Your task to perform on an android device: Search for vegetarian restaurants on Maps Image 0: 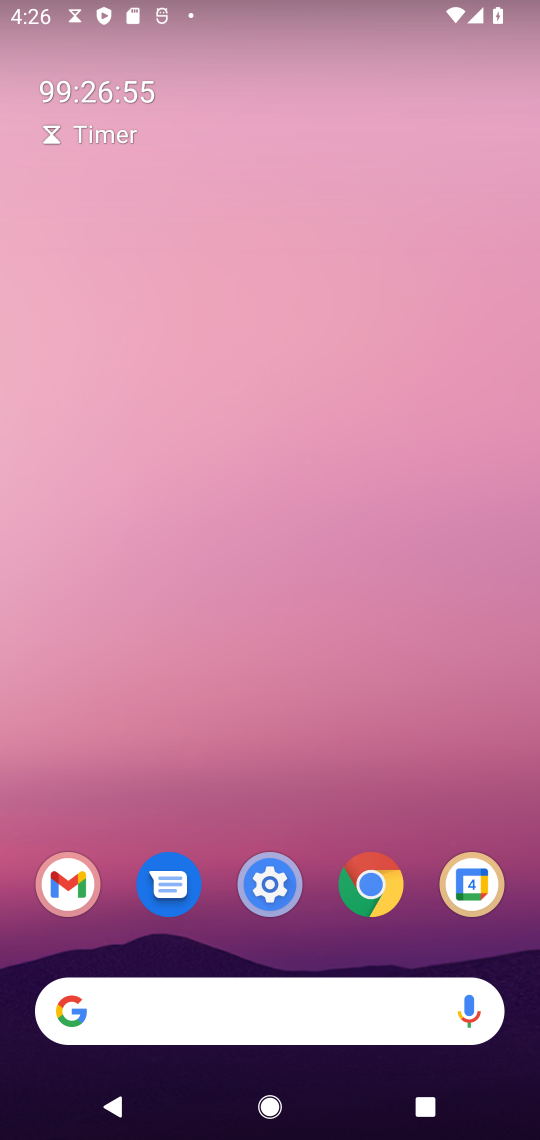
Step 0: drag from (258, 971) to (270, 414)
Your task to perform on an android device: Search for vegetarian restaurants on Maps Image 1: 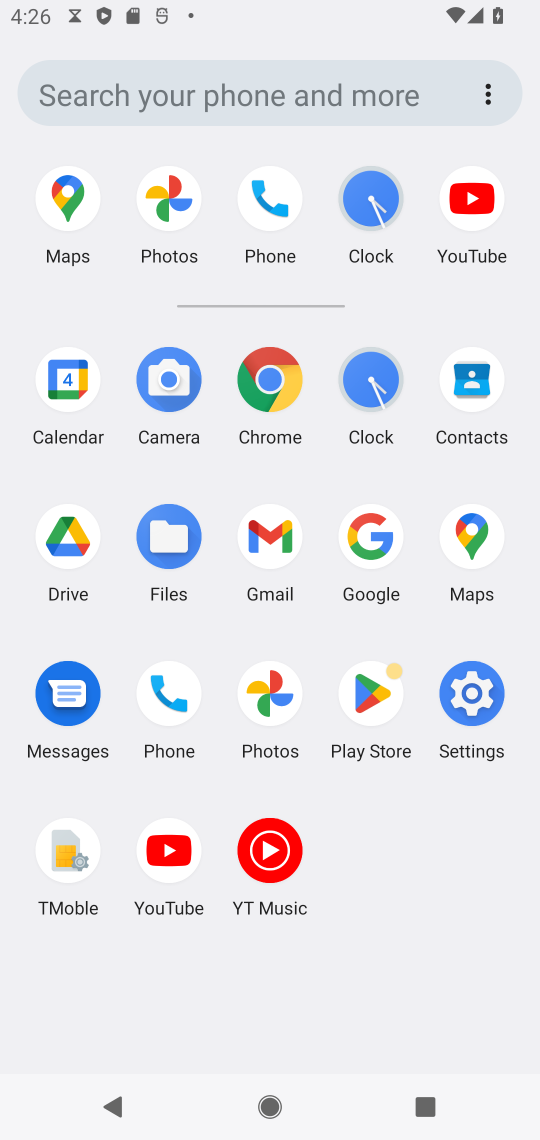
Step 1: click (470, 557)
Your task to perform on an android device: Search for vegetarian restaurants on Maps Image 2: 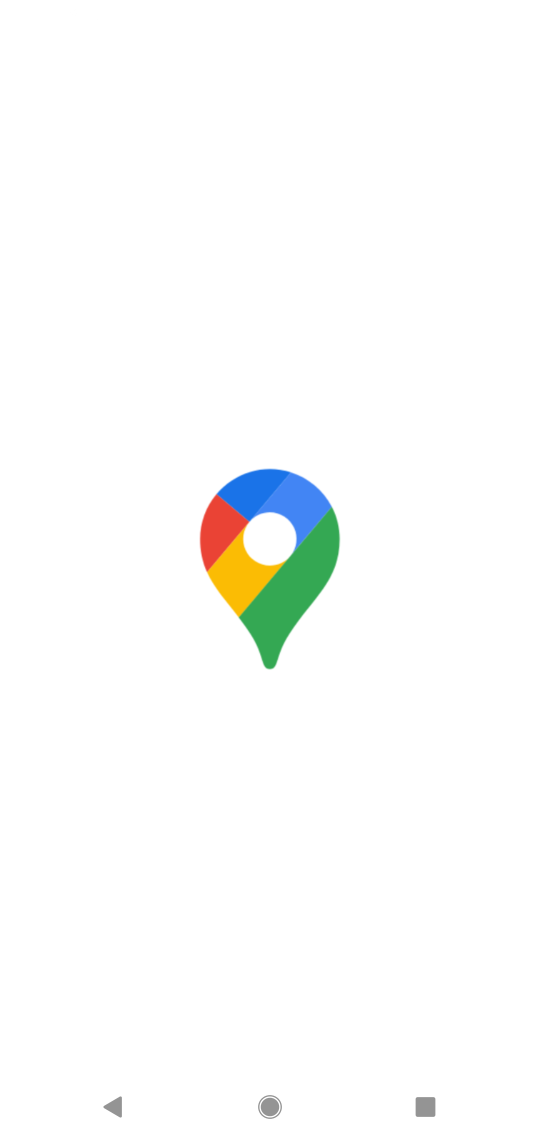
Step 2: task complete